Your task to perform on an android device: uninstall "Adobe Acrobat Reader" Image 0: 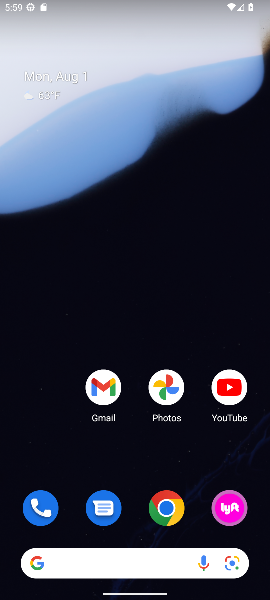
Step 0: drag from (143, 534) to (241, 45)
Your task to perform on an android device: uninstall "Adobe Acrobat Reader" Image 1: 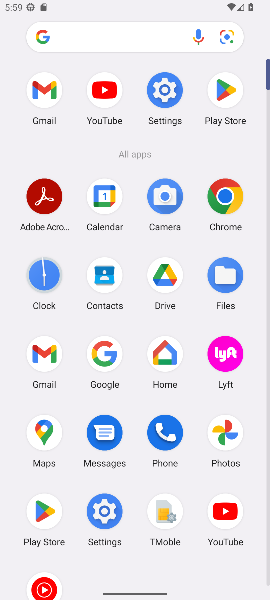
Step 1: click (43, 213)
Your task to perform on an android device: uninstall "Adobe Acrobat Reader" Image 2: 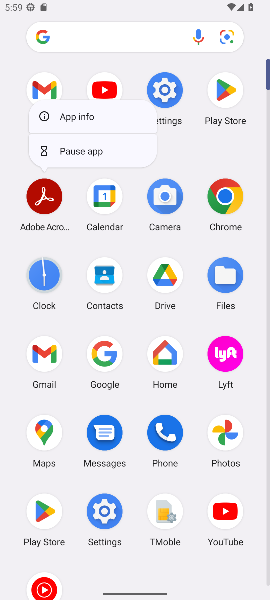
Step 2: click (51, 124)
Your task to perform on an android device: uninstall "Adobe Acrobat Reader" Image 3: 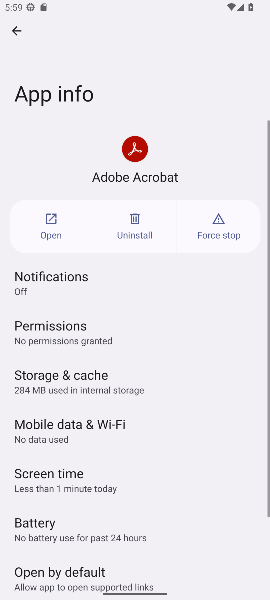
Step 3: click (128, 225)
Your task to perform on an android device: uninstall "Adobe Acrobat Reader" Image 4: 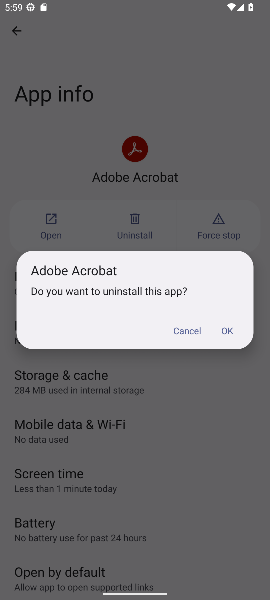
Step 4: click (227, 330)
Your task to perform on an android device: uninstall "Adobe Acrobat Reader" Image 5: 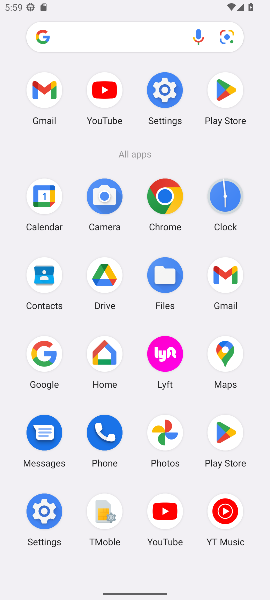
Step 5: task complete